Your task to perform on an android device: turn off notifications in google photos Image 0: 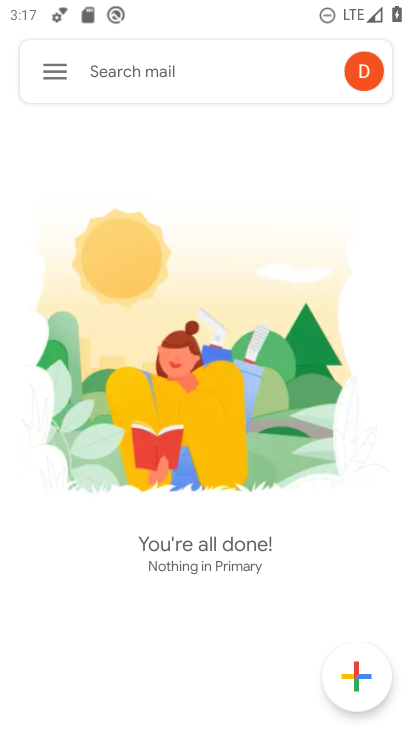
Step 0: press home button
Your task to perform on an android device: turn off notifications in google photos Image 1: 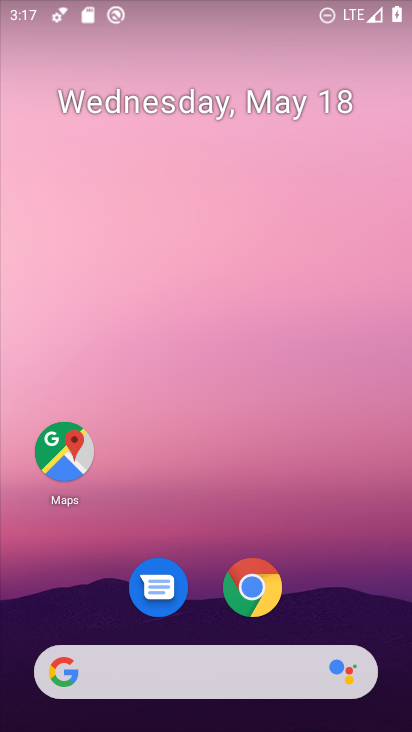
Step 1: drag from (212, 642) to (205, 81)
Your task to perform on an android device: turn off notifications in google photos Image 2: 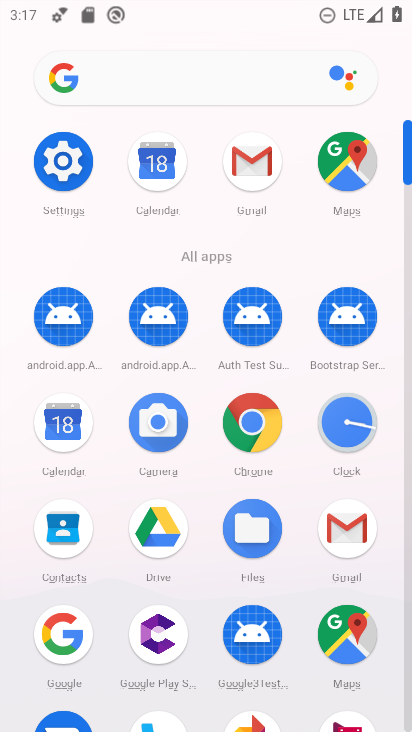
Step 2: drag from (193, 618) to (182, 145)
Your task to perform on an android device: turn off notifications in google photos Image 3: 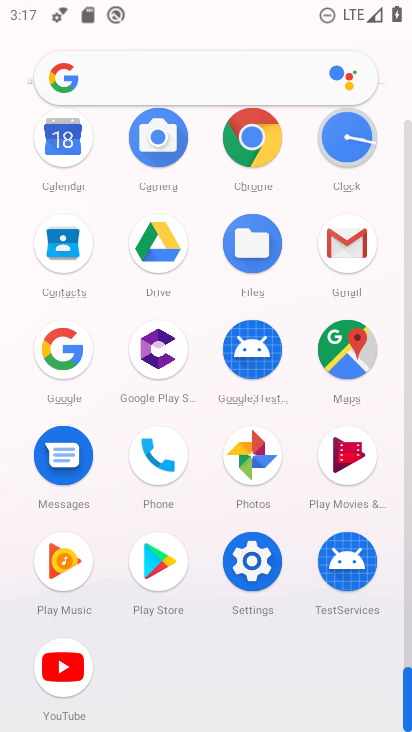
Step 3: click (227, 449)
Your task to perform on an android device: turn off notifications in google photos Image 4: 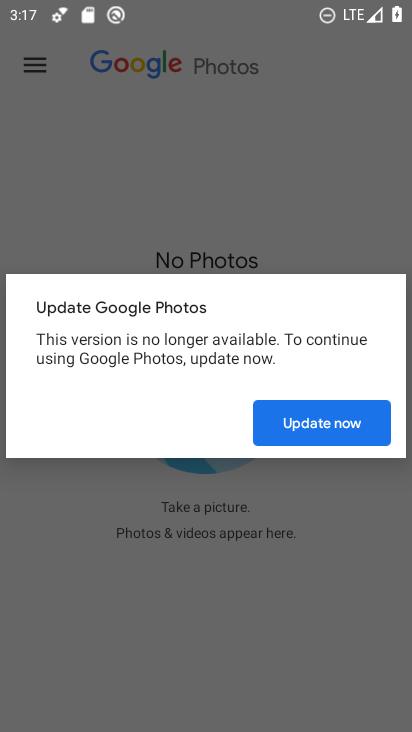
Step 4: click (267, 436)
Your task to perform on an android device: turn off notifications in google photos Image 5: 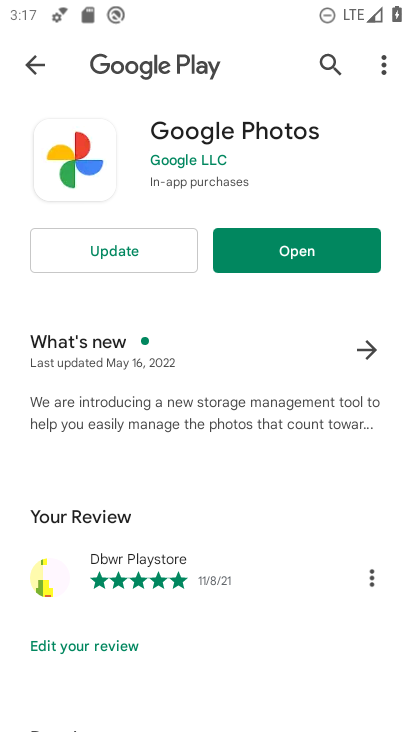
Step 5: click (174, 246)
Your task to perform on an android device: turn off notifications in google photos Image 6: 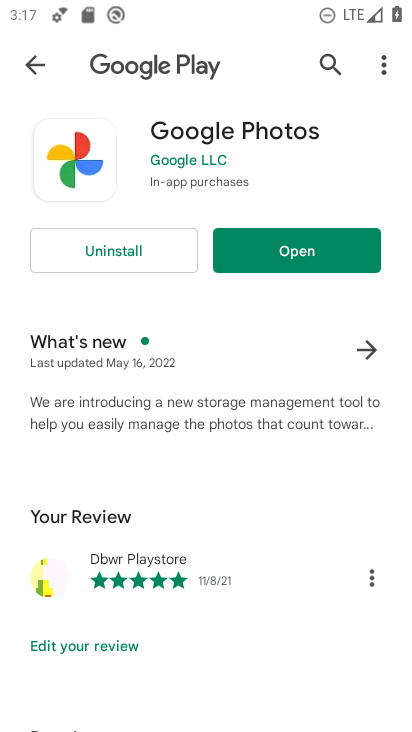
Step 6: click (278, 246)
Your task to perform on an android device: turn off notifications in google photos Image 7: 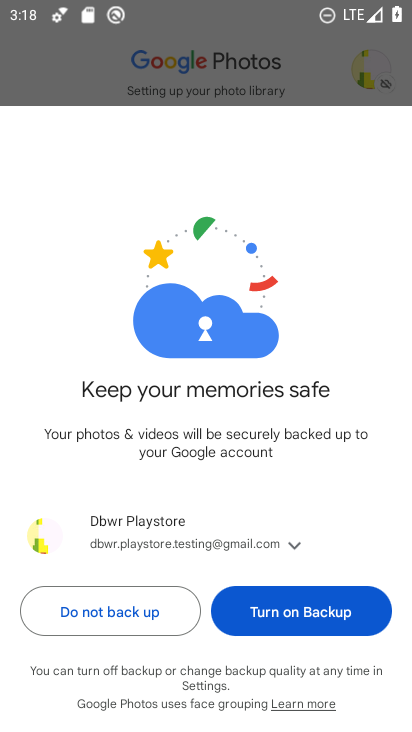
Step 7: click (248, 614)
Your task to perform on an android device: turn off notifications in google photos Image 8: 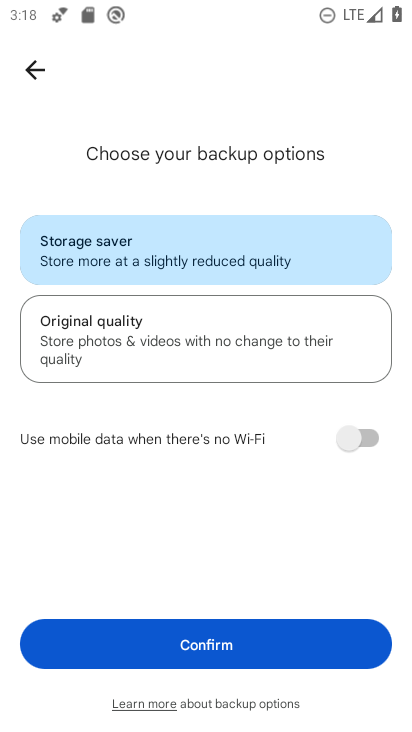
Step 8: click (204, 642)
Your task to perform on an android device: turn off notifications in google photos Image 9: 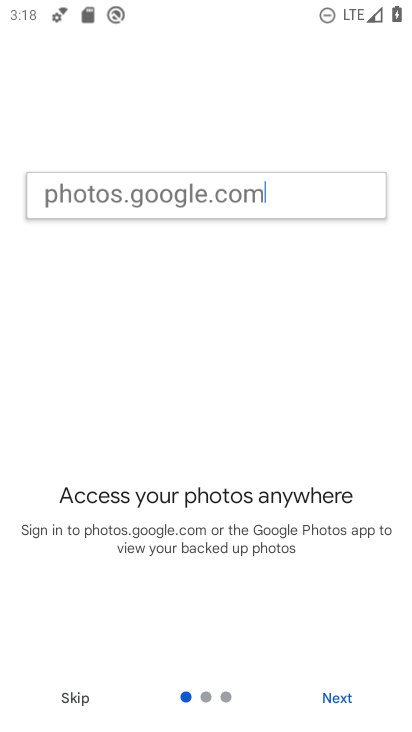
Step 9: click (71, 708)
Your task to perform on an android device: turn off notifications in google photos Image 10: 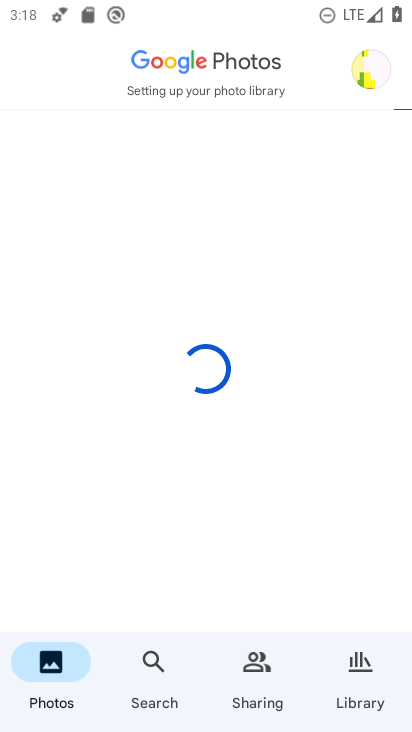
Step 10: click (371, 73)
Your task to perform on an android device: turn off notifications in google photos Image 11: 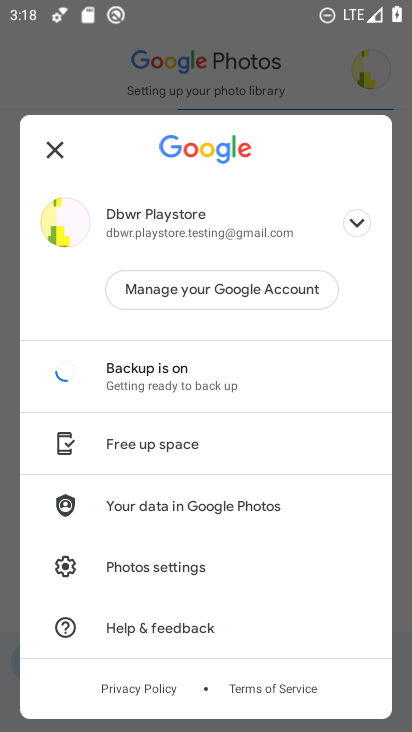
Step 11: click (182, 568)
Your task to perform on an android device: turn off notifications in google photos Image 12: 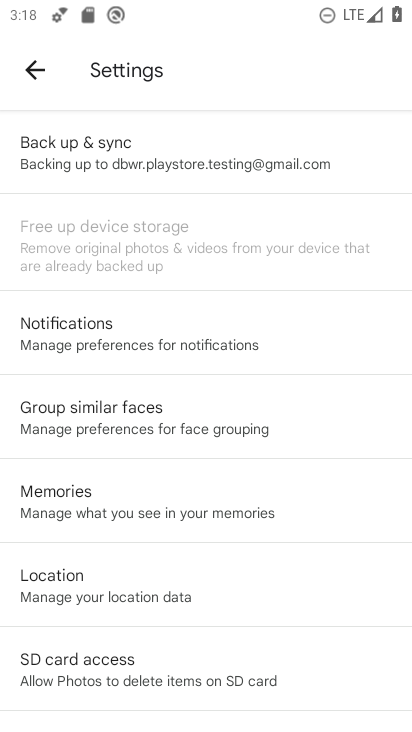
Step 12: click (142, 347)
Your task to perform on an android device: turn off notifications in google photos Image 13: 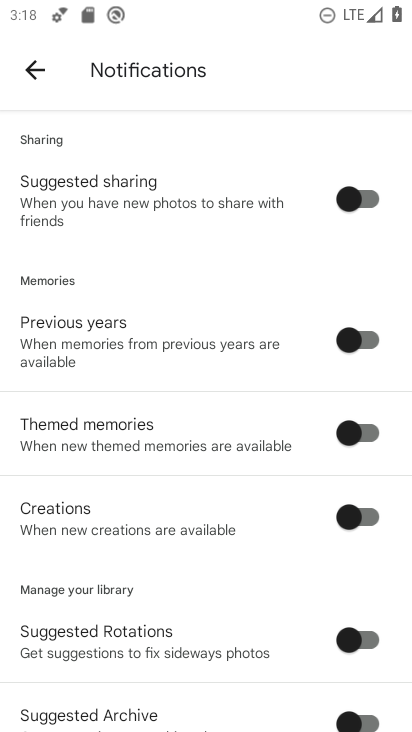
Step 13: drag from (202, 577) to (131, 163)
Your task to perform on an android device: turn off notifications in google photos Image 14: 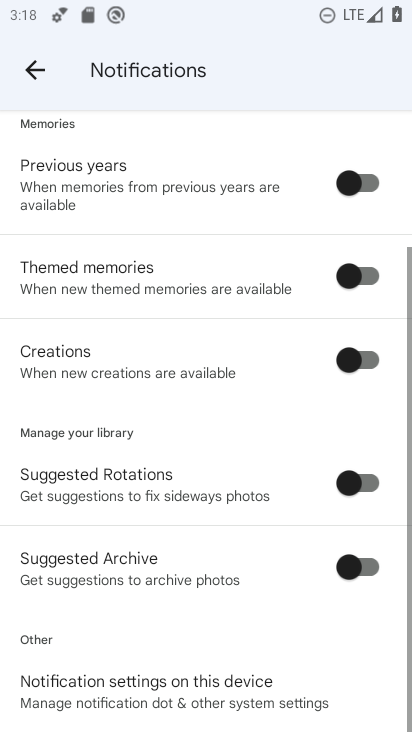
Step 14: click (185, 680)
Your task to perform on an android device: turn off notifications in google photos Image 15: 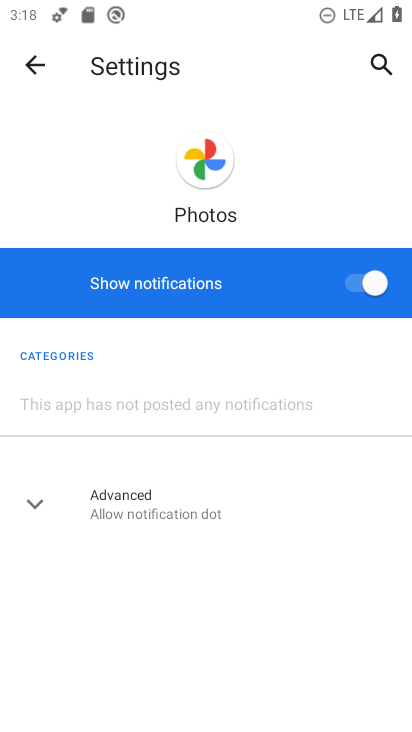
Step 15: click (358, 279)
Your task to perform on an android device: turn off notifications in google photos Image 16: 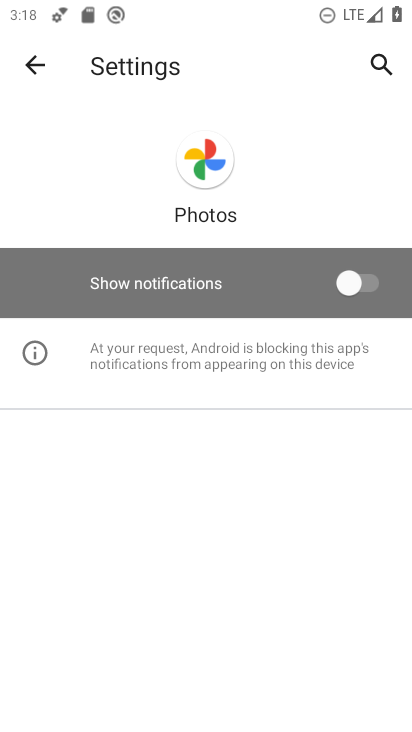
Step 16: task complete